Your task to perform on an android device: Open Chrome and go to the settings page Image 0: 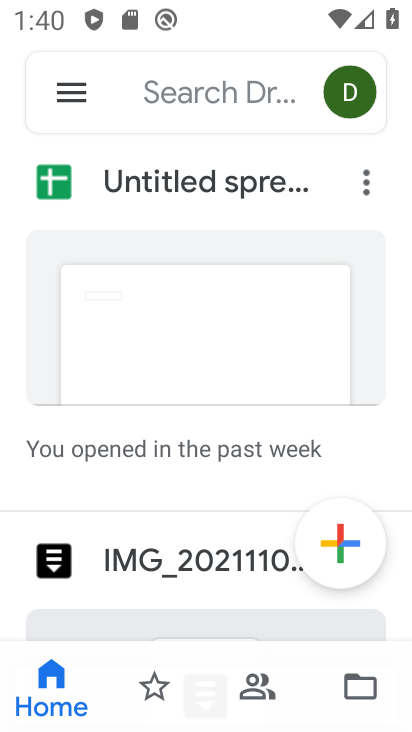
Step 0: press back button
Your task to perform on an android device: Open Chrome and go to the settings page Image 1: 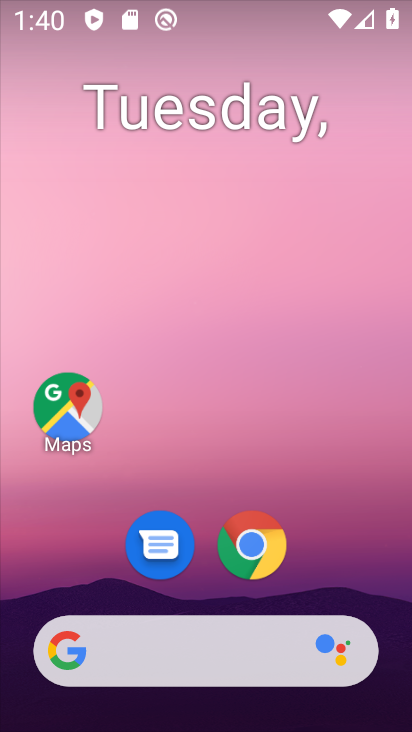
Step 1: drag from (323, 557) to (229, 7)
Your task to perform on an android device: Open Chrome and go to the settings page Image 2: 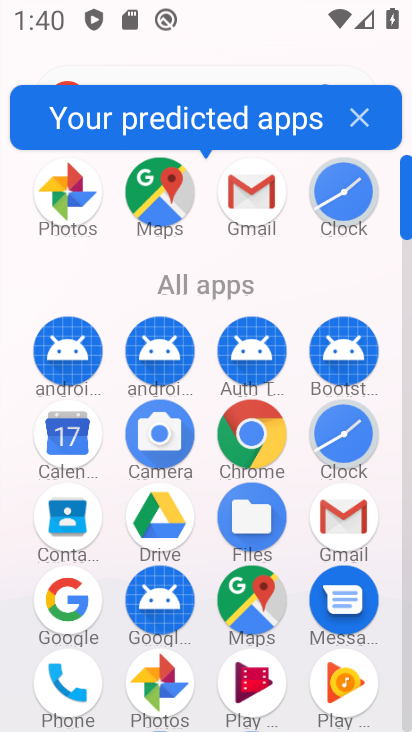
Step 2: click (255, 426)
Your task to perform on an android device: Open Chrome and go to the settings page Image 3: 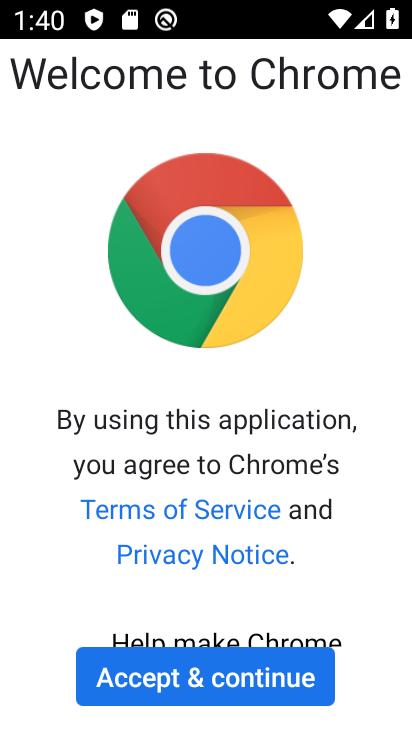
Step 3: click (238, 666)
Your task to perform on an android device: Open Chrome and go to the settings page Image 4: 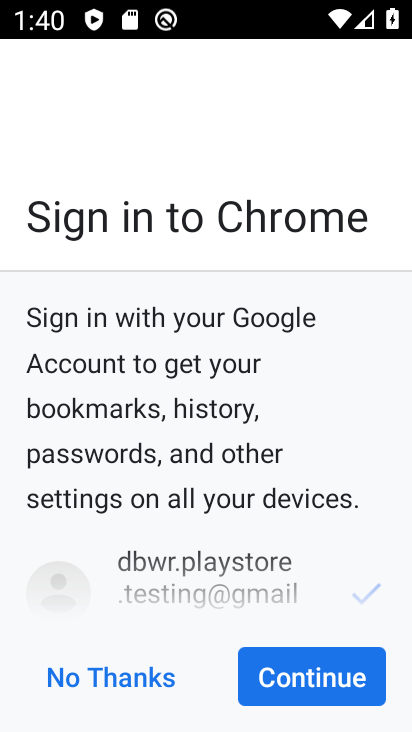
Step 4: click (286, 671)
Your task to perform on an android device: Open Chrome and go to the settings page Image 5: 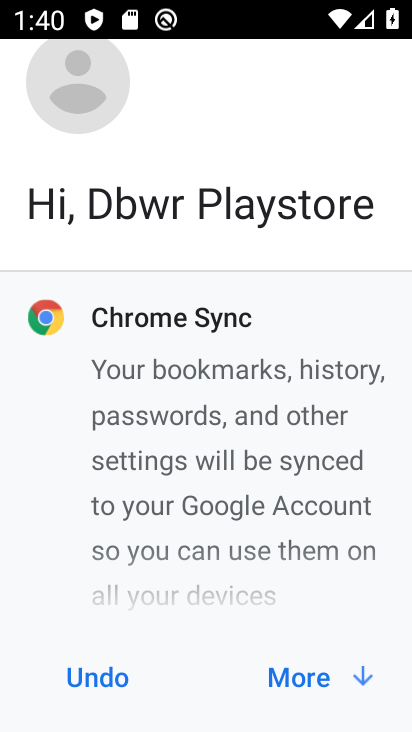
Step 5: click (286, 671)
Your task to perform on an android device: Open Chrome and go to the settings page Image 6: 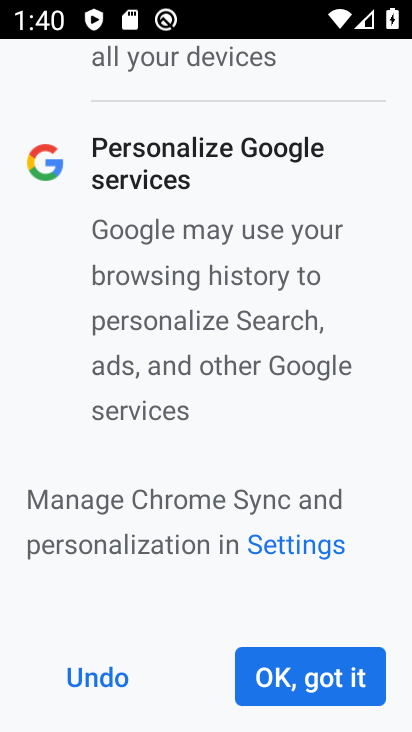
Step 6: click (286, 671)
Your task to perform on an android device: Open Chrome and go to the settings page Image 7: 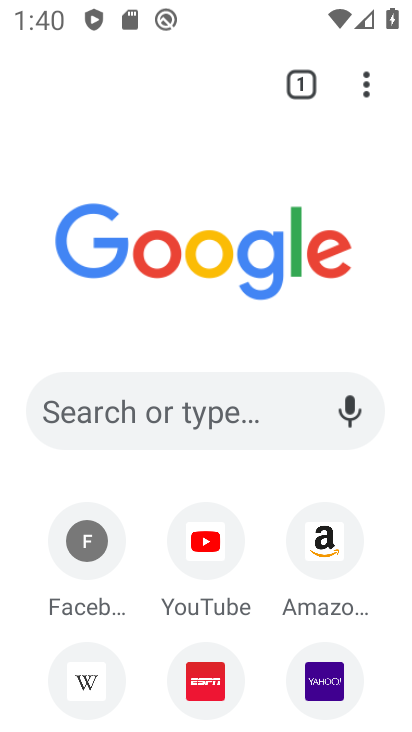
Step 7: task complete